Your task to perform on an android device: Search for pizza restaurants on Maps Image 0: 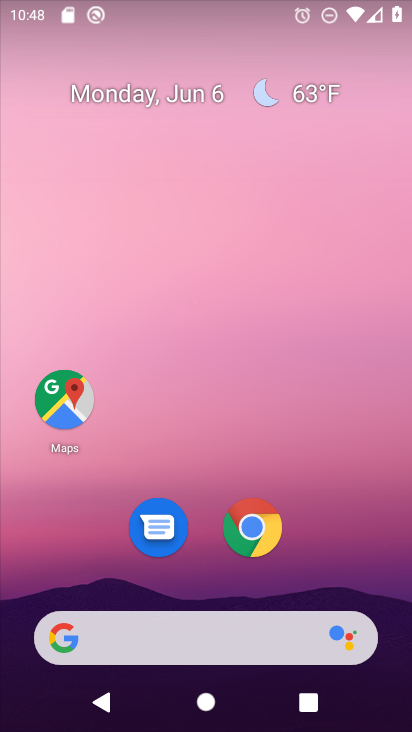
Step 0: drag from (379, 555) to (358, 202)
Your task to perform on an android device: Search for pizza restaurants on Maps Image 1: 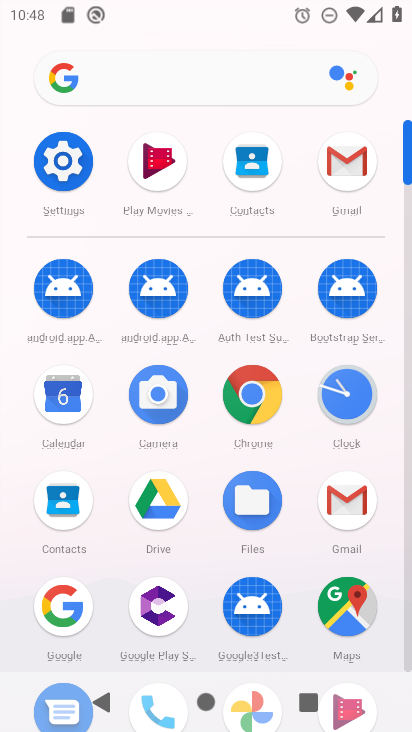
Step 1: click (352, 614)
Your task to perform on an android device: Search for pizza restaurants on Maps Image 2: 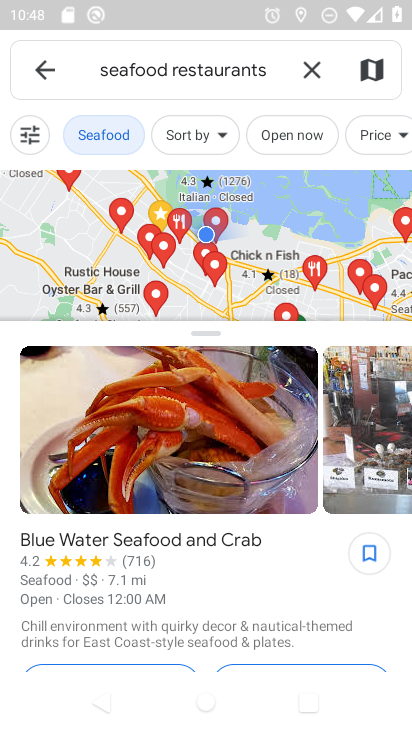
Step 2: click (312, 72)
Your task to perform on an android device: Search for pizza restaurants on Maps Image 3: 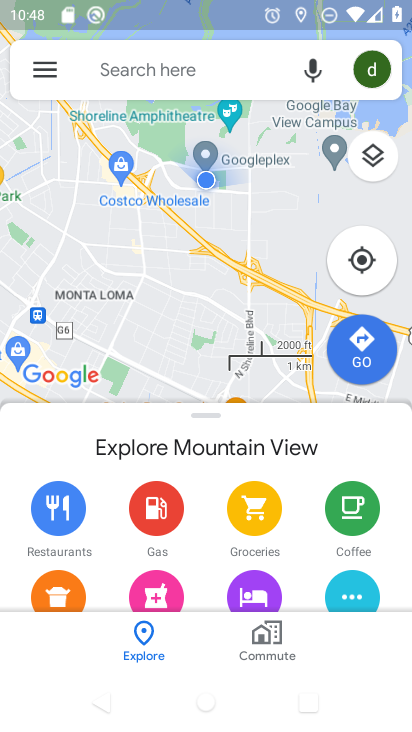
Step 3: click (176, 64)
Your task to perform on an android device: Search for pizza restaurants on Maps Image 4: 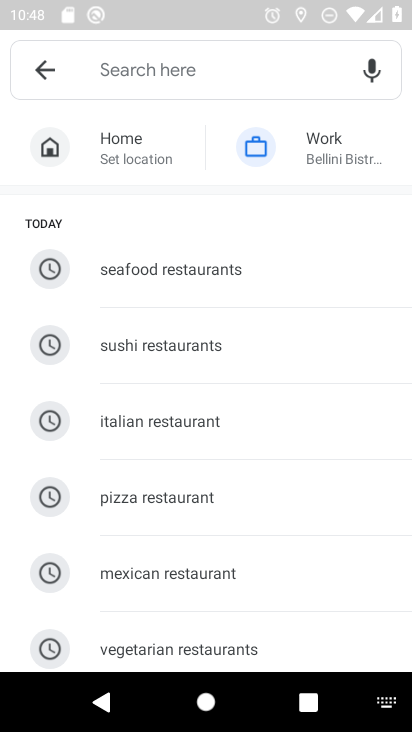
Step 4: type "pizzaa reestaurants"
Your task to perform on an android device: Search for pizza restaurants on Maps Image 5: 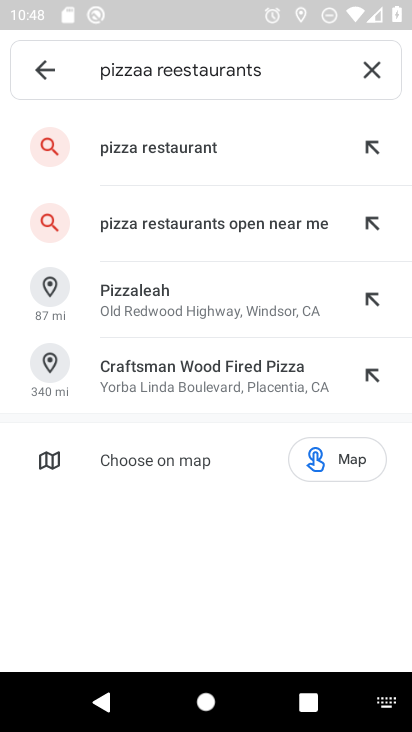
Step 5: click (212, 160)
Your task to perform on an android device: Search for pizza restaurants on Maps Image 6: 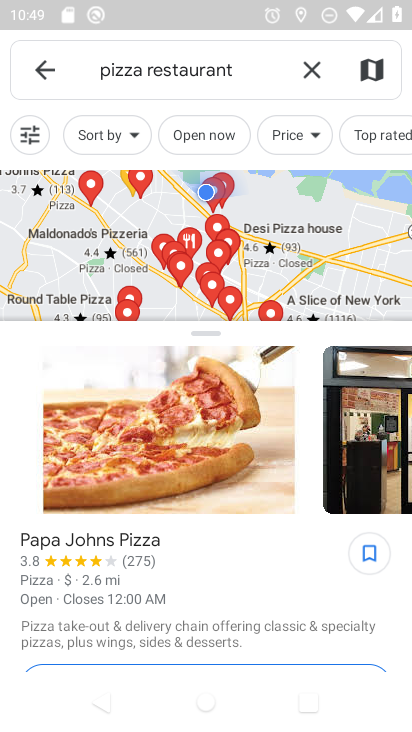
Step 6: task complete